Your task to perform on an android device: What is the news today? Image 0: 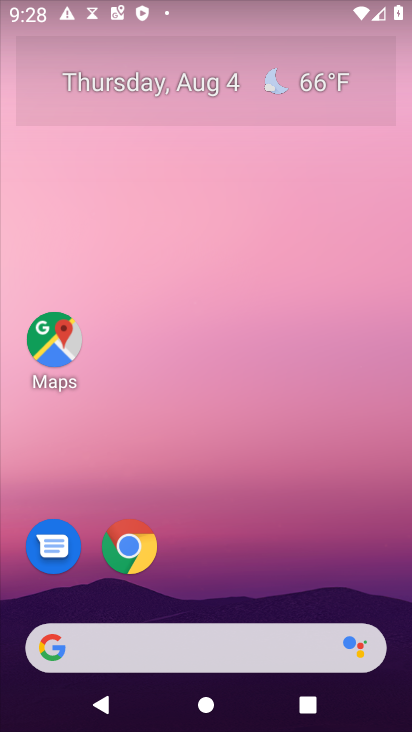
Step 0: press home button
Your task to perform on an android device: What is the news today? Image 1: 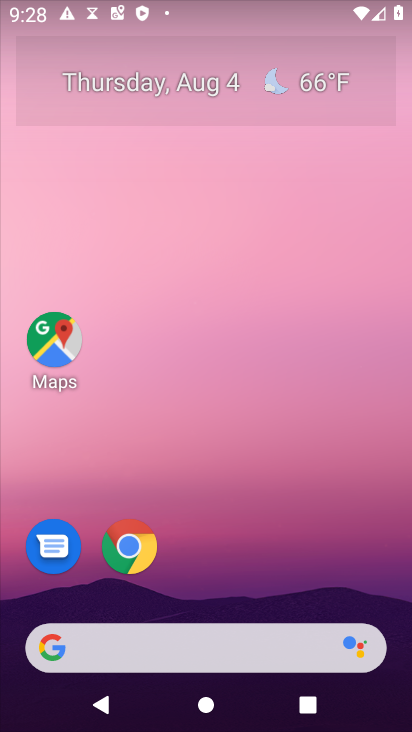
Step 1: click (56, 648)
Your task to perform on an android device: What is the news today? Image 2: 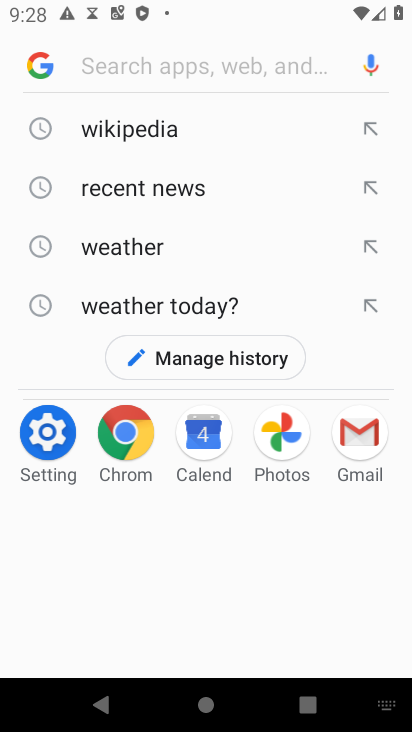
Step 2: type "news today?"
Your task to perform on an android device: What is the news today? Image 3: 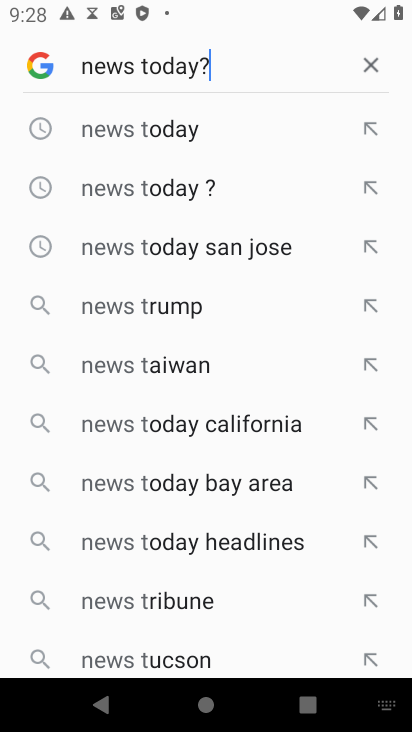
Step 3: press enter
Your task to perform on an android device: What is the news today? Image 4: 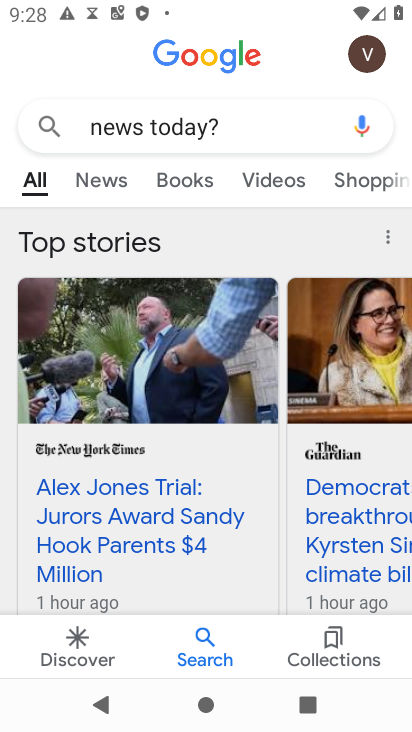
Step 4: task complete